Your task to perform on an android device: Go to Wikipedia Image 0: 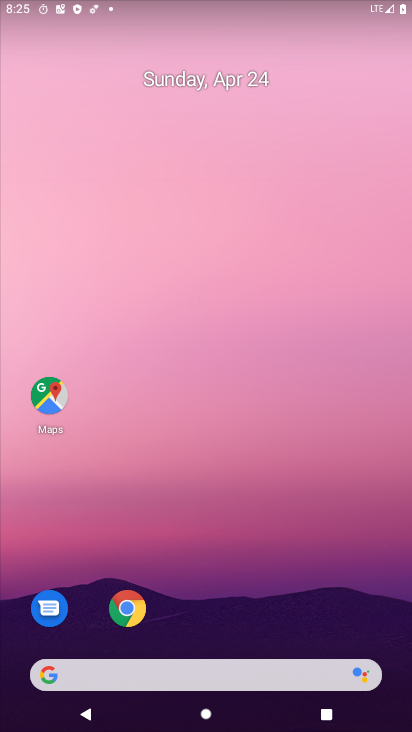
Step 0: click (132, 613)
Your task to perform on an android device: Go to Wikipedia Image 1: 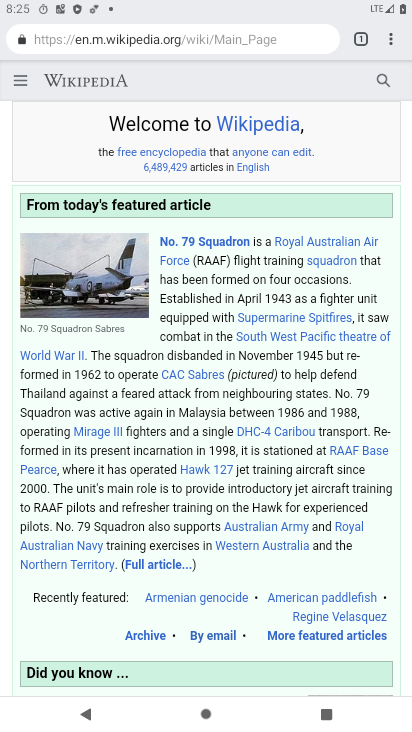
Step 1: task complete